Your task to perform on an android device: Search for a new blush Image 0: 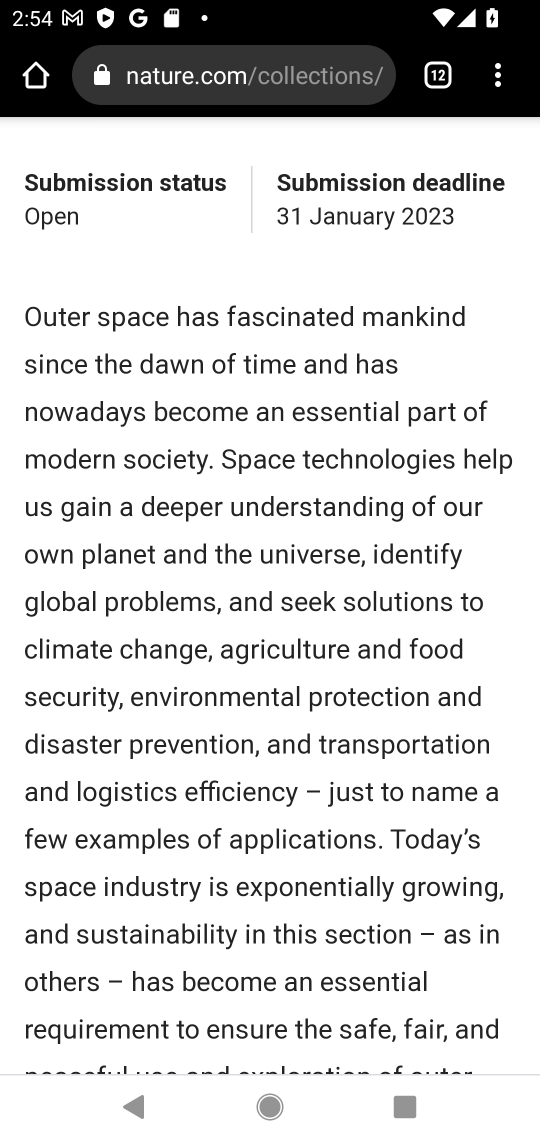
Step 0: press home button
Your task to perform on an android device: Search for a new blush Image 1: 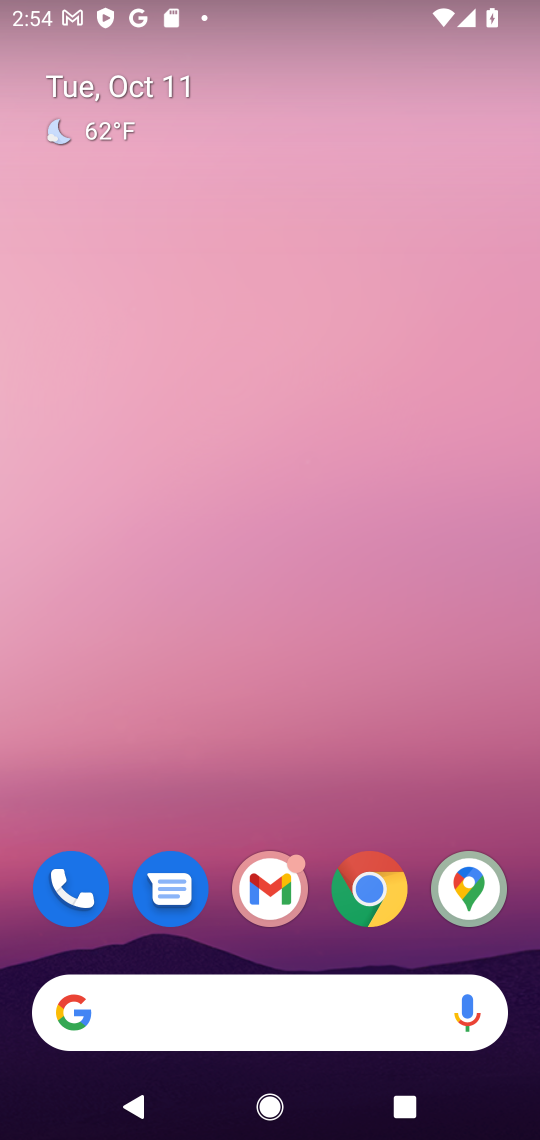
Step 1: drag from (217, 925) to (306, 323)
Your task to perform on an android device: Search for a new blush Image 2: 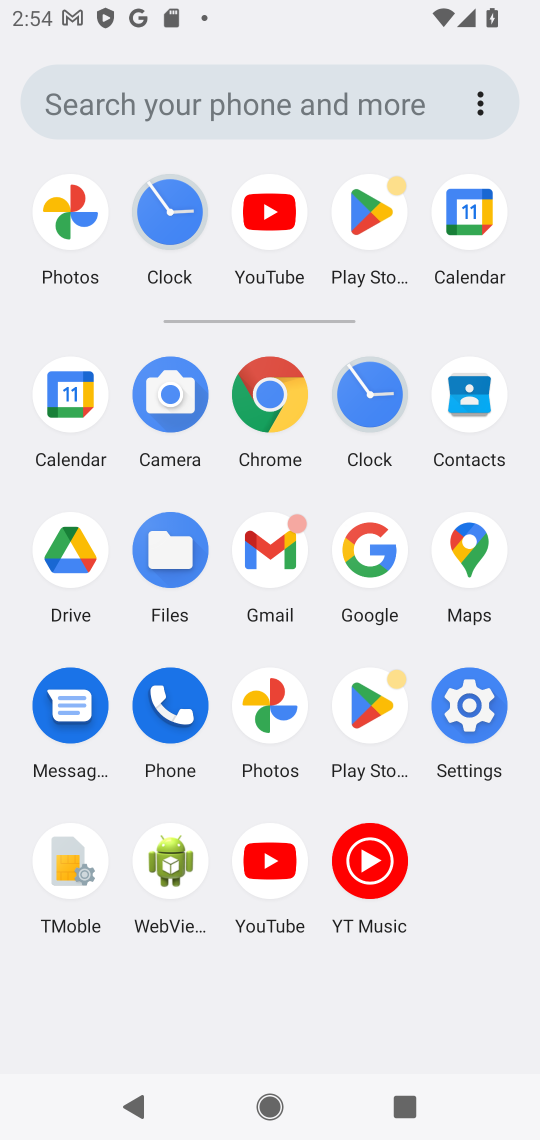
Step 2: click (364, 540)
Your task to perform on an android device: Search for a new blush Image 3: 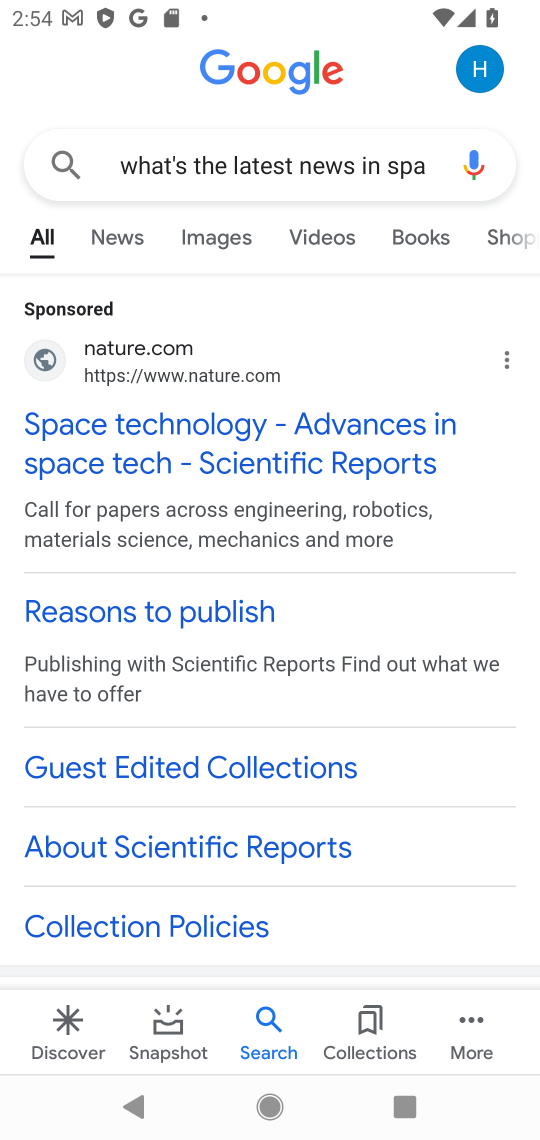
Step 3: click (189, 148)
Your task to perform on an android device: Search for a new blush Image 4: 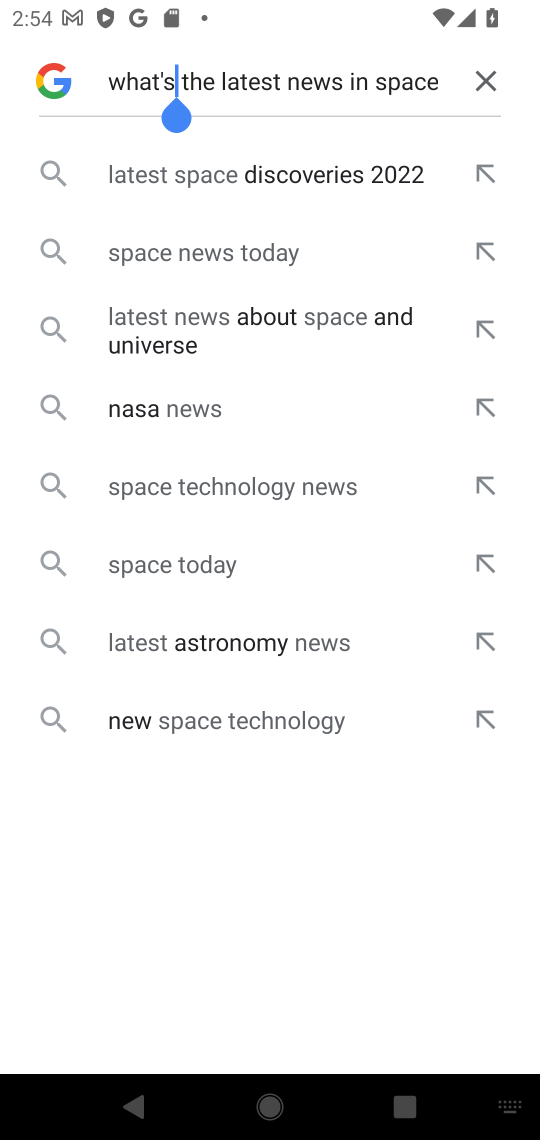
Step 4: click (498, 67)
Your task to perform on an android device: Search for a new blush Image 5: 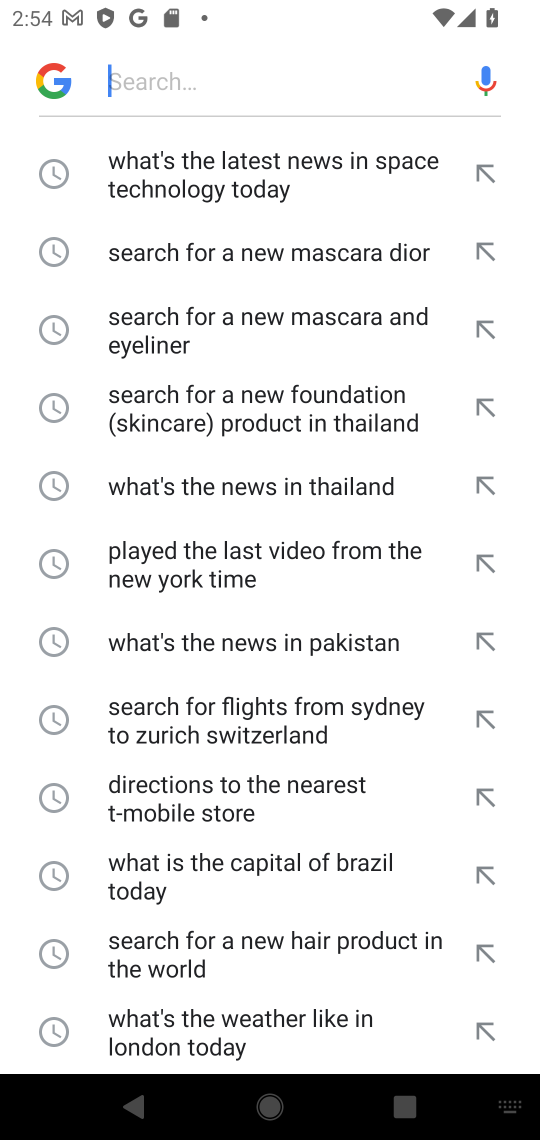
Step 5: click (194, 81)
Your task to perform on an android device: Search for a new blush Image 6: 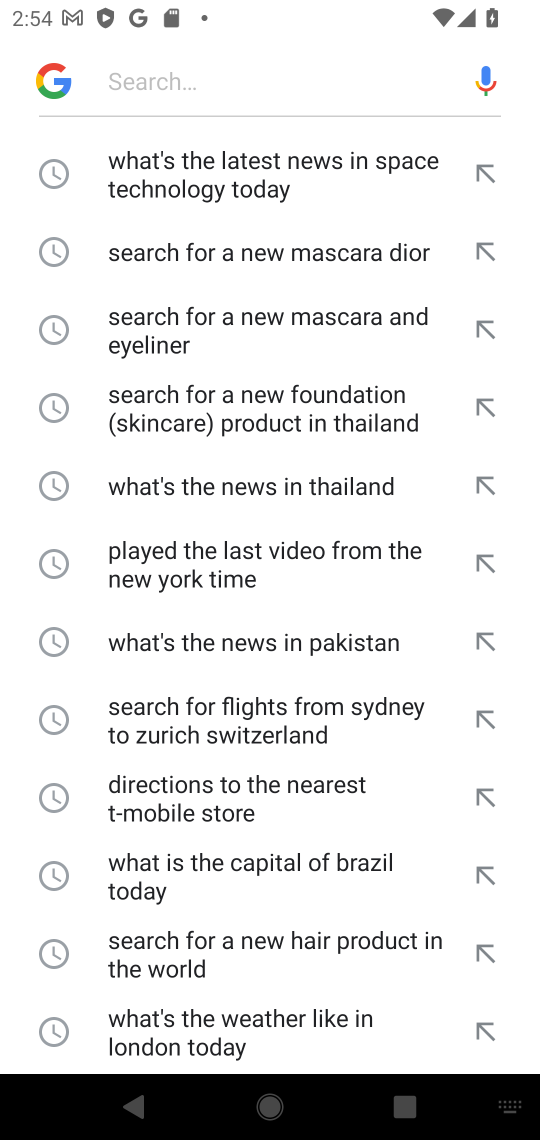
Step 6: type "Search for a new blush "
Your task to perform on an android device: Search for a new blush Image 7: 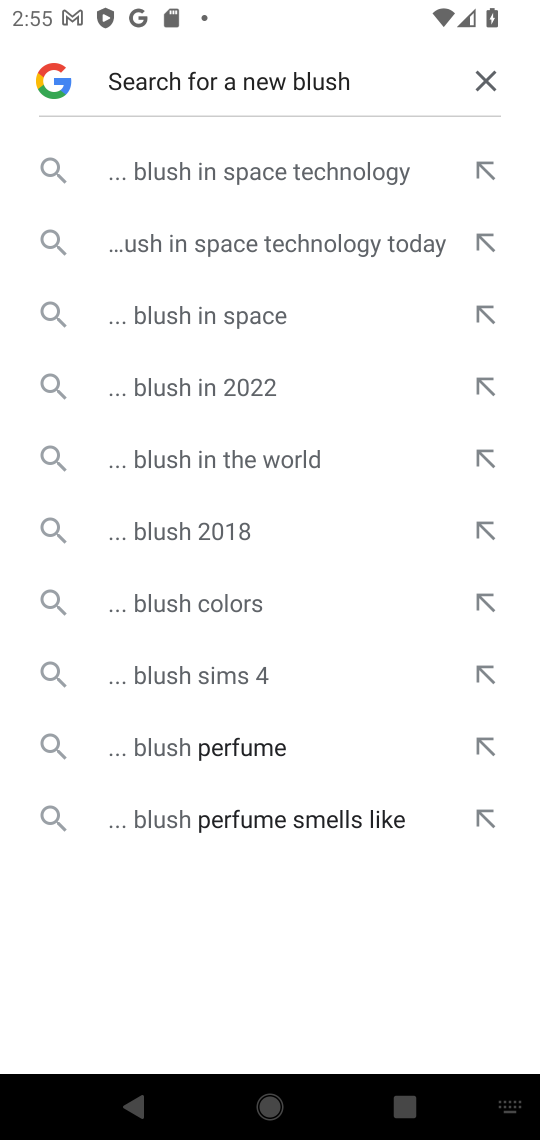
Step 7: click (250, 368)
Your task to perform on an android device: Search for a new blush Image 8: 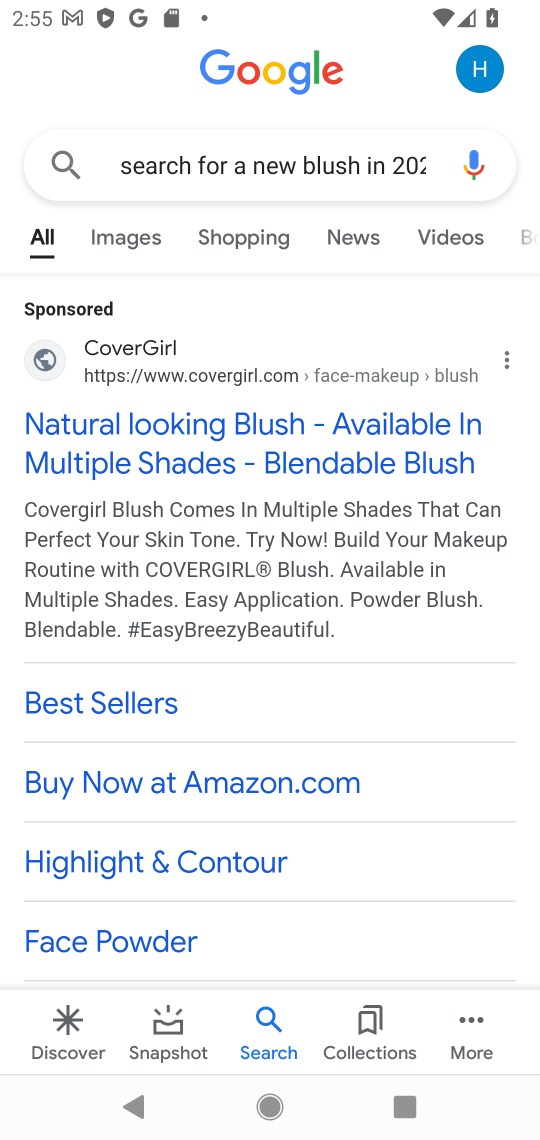
Step 8: click (231, 412)
Your task to perform on an android device: Search for a new blush Image 9: 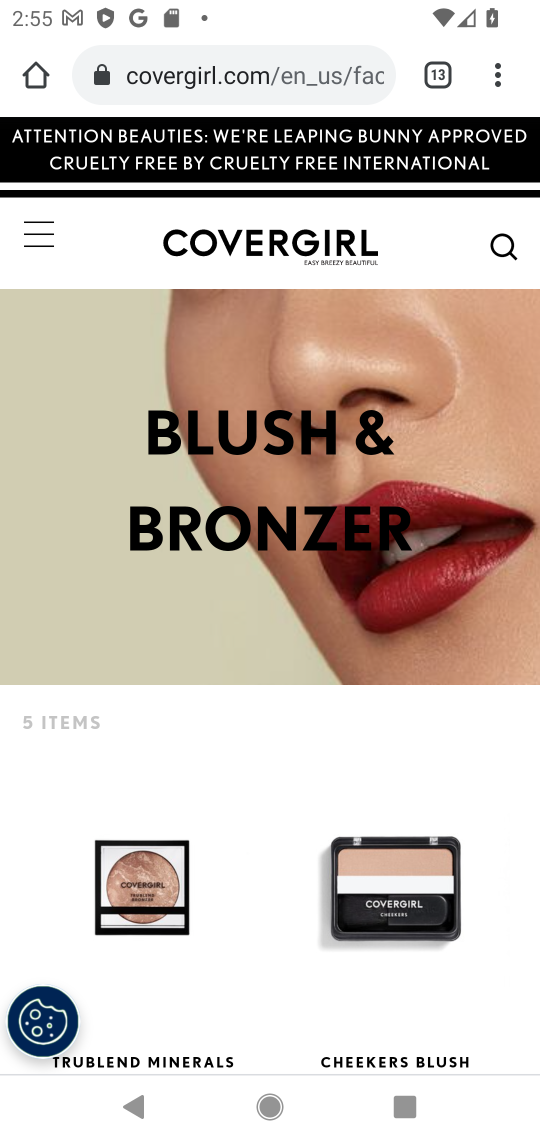
Step 9: task complete